Your task to perform on an android device: turn pop-ups off in chrome Image 0: 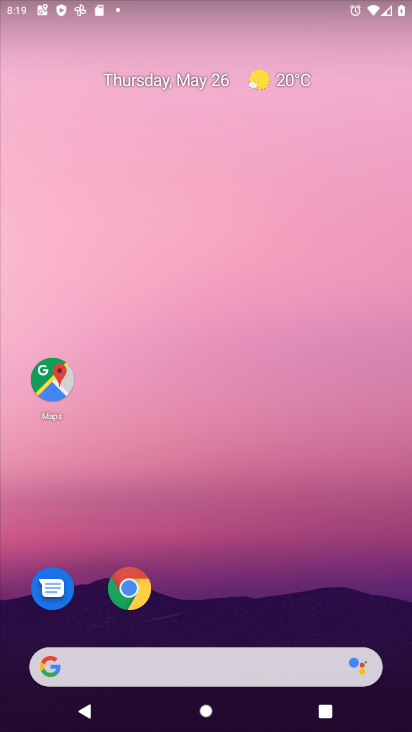
Step 0: drag from (386, 629) to (334, 65)
Your task to perform on an android device: turn pop-ups off in chrome Image 1: 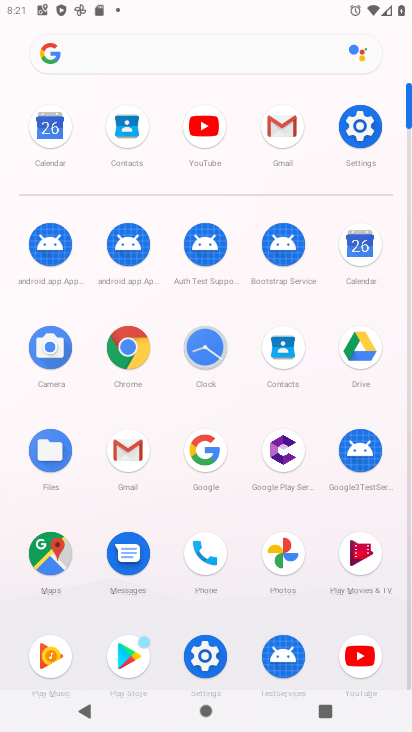
Step 1: click (139, 332)
Your task to perform on an android device: turn pop-ups off in chrome Image 2: 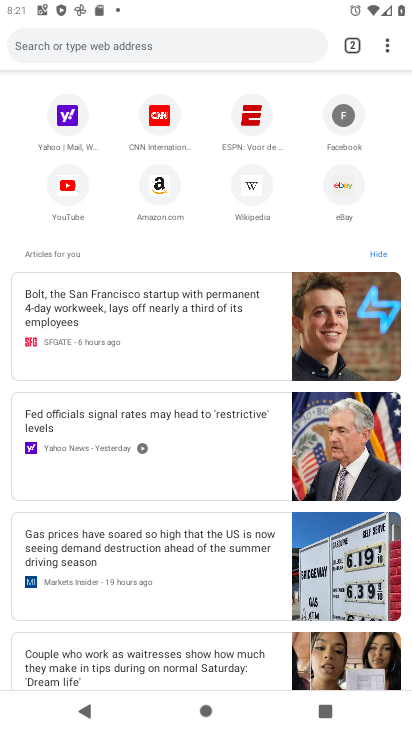
Step 2: click (383, 43)
Your task to perform on an android device: turn pop-ups off in chrome Image 3: 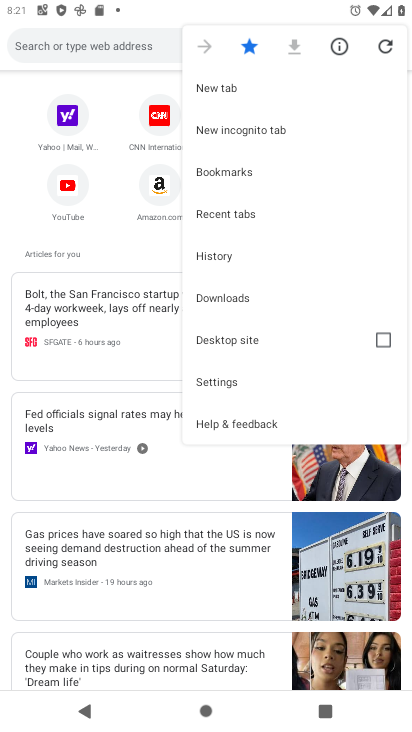
Step 3: click (244, 388)
Your task to perform on an android device: turn pop-ups off in chrome Image 4: 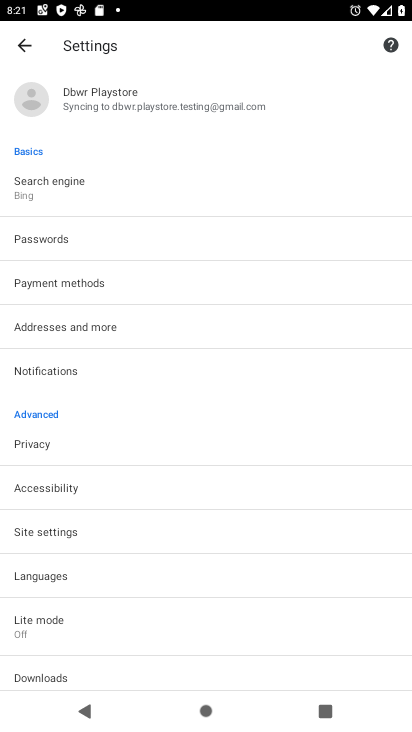
Step 4: click (109, 540)
Your task to perform on an android device: turn pop-ups off in chrome Image 5: 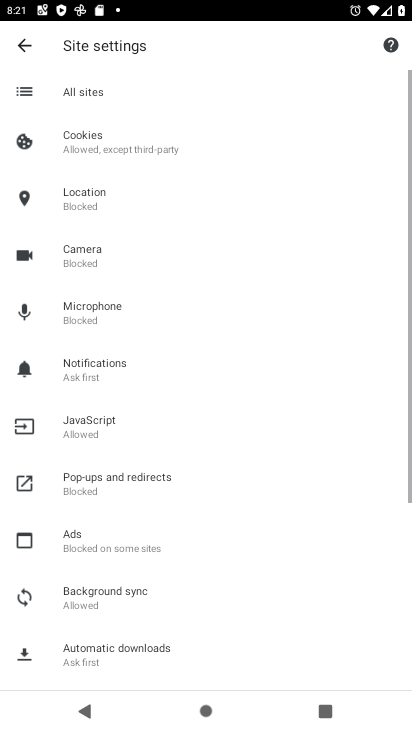
Step 5: click (106, 462)
Your task to perform on an android device: turn pop-ups off in chrome Image 6: 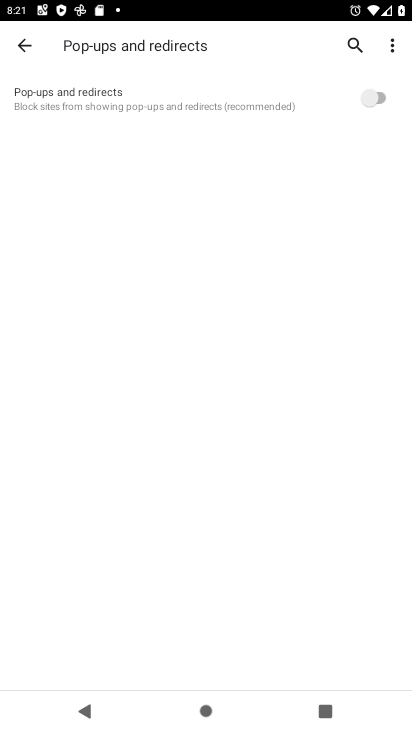
Step 6: task complete